Your task to perform on an android device: turn off airplane mode Image 0: 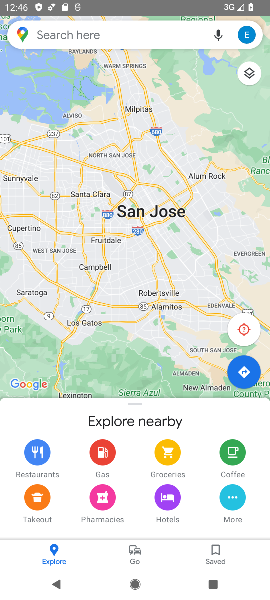
Step 0: press home button
Your task to perform on an android device: turn off airplane mode Image 1: 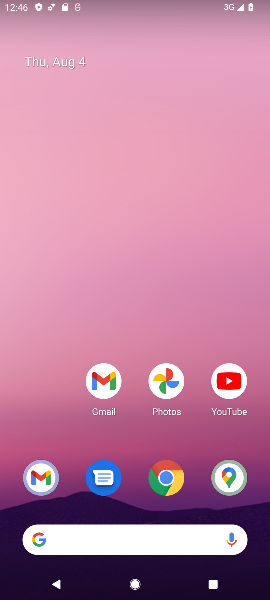
Step 1: drag from (78, 412) to (191, 51)
Your task to perform on an android device: turn off airplane mode Image 2: 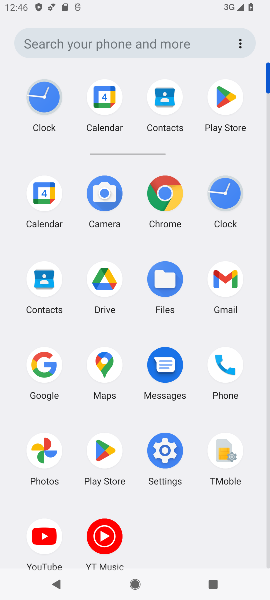
Step 2: drag from (244, 6) to (10, 513)
Your task to perform on an android device: turn off airplane mode Image 3: 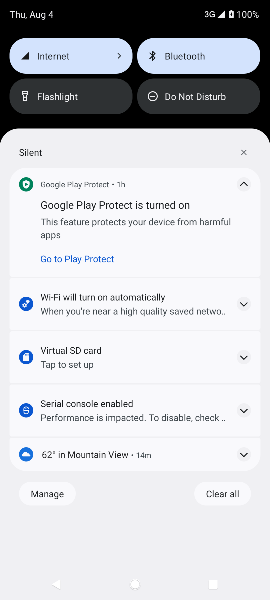
Step 3: drag from (131, 121) to (113, 391)
Your task to perform on an android device: turn off airplane mode Image 4: 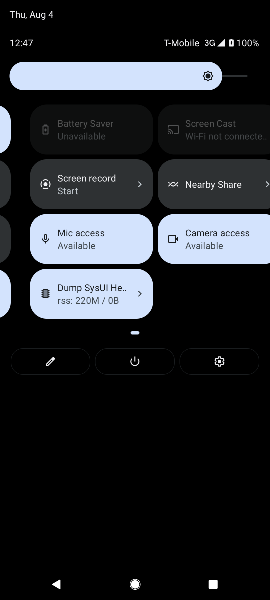
Step 4: click (177, 238)
Your task to perform on an android device: turn off airplane mode Image 5: 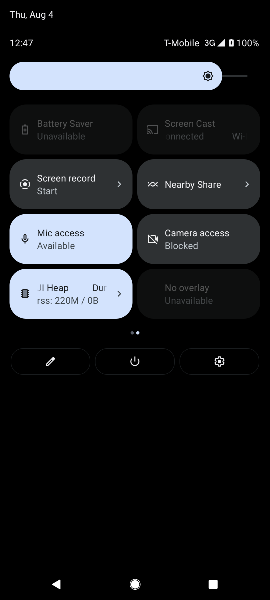
Step 5: drag from (9, 191) to (262, 241)
Your task to perform on an android device: turn off airplane mode Image 6: 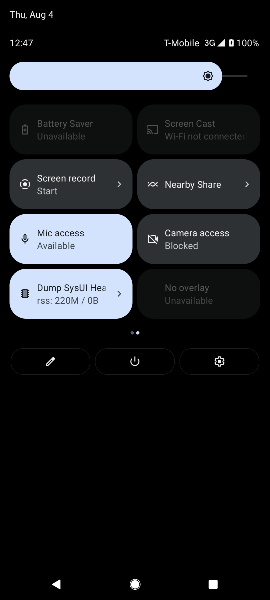
Step 6: drag from (5, 327) to (261, 340)
Your task to perform on an android device: turn off airplane mode Image 7: 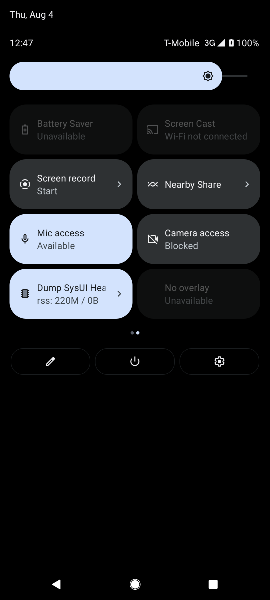
Step 7: drag from (41, 330) to (265, 452)
Your task to perform on an android device: turn off airplane mode Image 8: 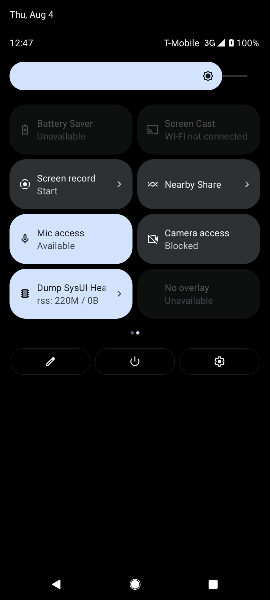
Step 8: press back button
Your task to perform on an android device: turn off airplane mode Image 9: 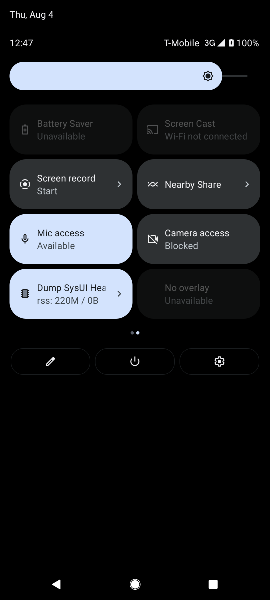
Step 9: press back button
Your task to perform on an android device: turn off airplane mode Image 10: 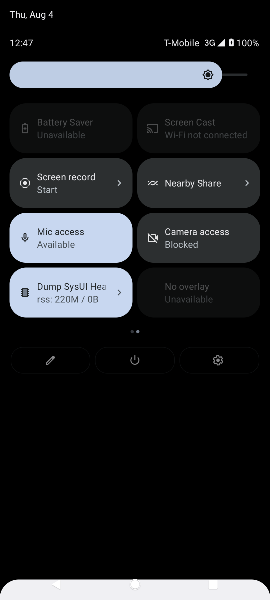
Step 10: press back button
Your task to perform on an android device: turn off airplane mode Image 11: 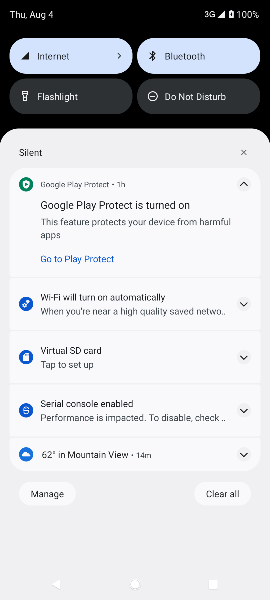
Step 11: press back button
Your task to perform on an android device: turn off airplane mode Image 12: 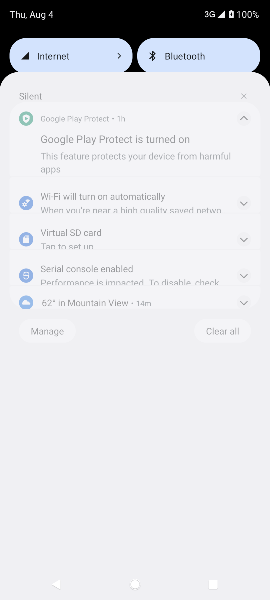
Step 12: press back button
Your task to perform on an android device: turn off airplane mode Image 13: 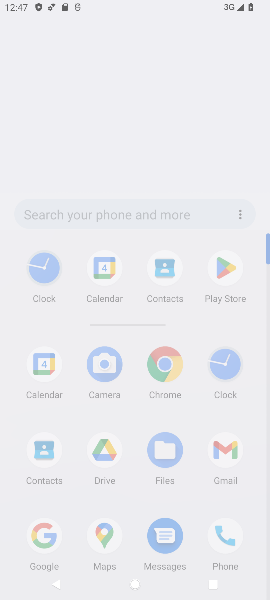
Step 13: press back button
Your task to perform on an android device: turn off airplane mode Image 14: 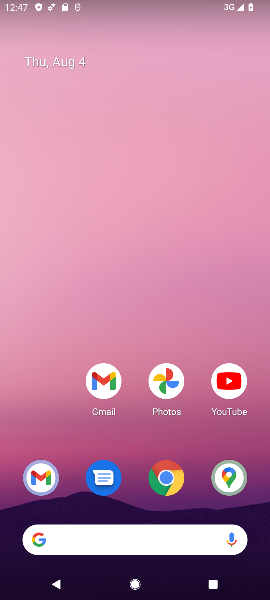
Step 14: press back button
Your task to perform on an android device: turn off airplane mode Image 15: 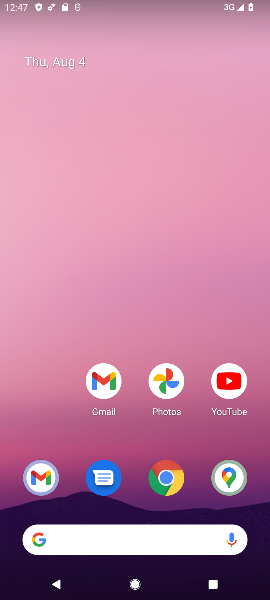
Step 15: drag from (224, 3) to (81, 517)
Your task to perform on an android device: turn off airplane mode Image 16: 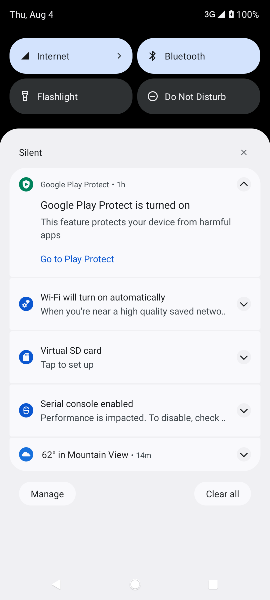
Step 16: drag from (134, 109) to (16, 590)
Your task to perform on an android device: turn off airplane mode Image 17: 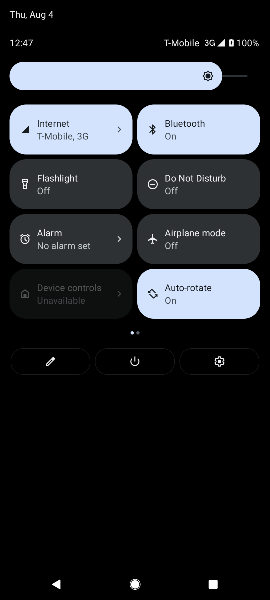
Step 17: drag from (136, 475) to (89, 592)
Your task to perform on an android device: turn off airplane mode Image 18: 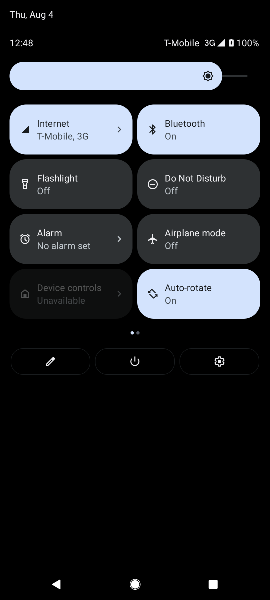
Step 18: click (234, 239)
Your task to perform on an android device: turn off airplane mode Image 19: 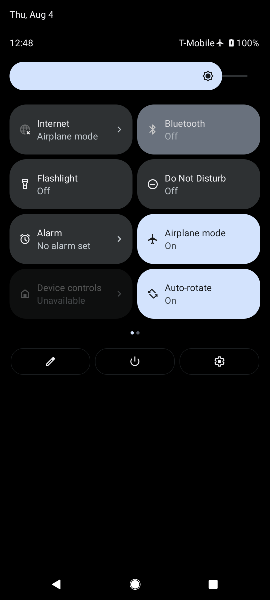
Step 19: click (232, 247)
Your task to perform on an android device: turn off airplane mode Image 20: 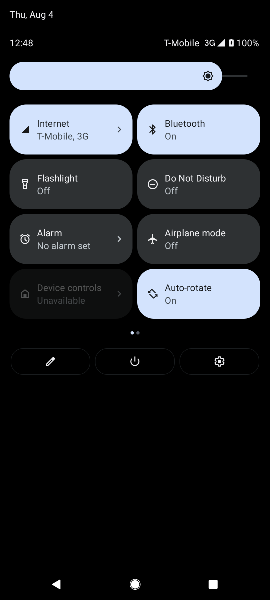
Step 20: task complete